Your task to perform on an android device: See recent photos Image 0: 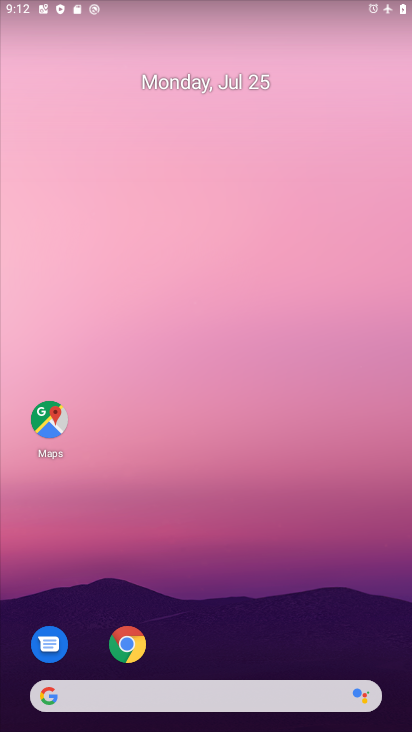
Step 0: drag from (206, 635) to (205, 32)
Your task to perform on an android device: See recent photos Image 1: 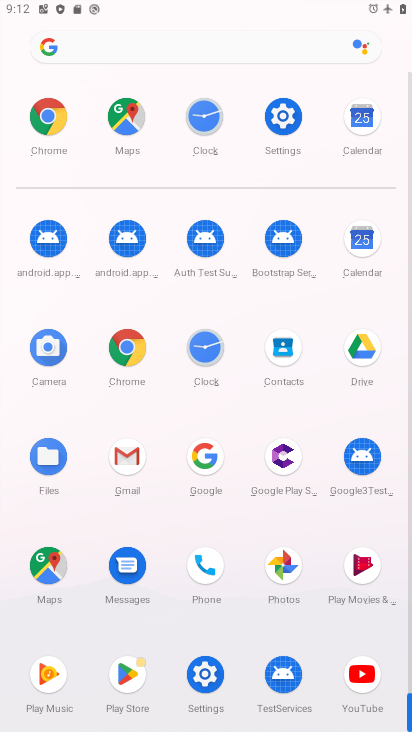
Step 1: click (267, 573)
Your task to perform on an android device: See recent photos Image 2: 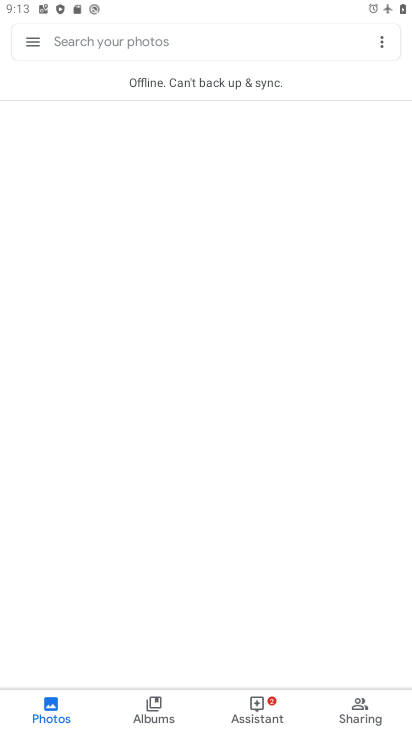
Step 2: task complete